Your task to perform on an android device: set an alarm Image 0: 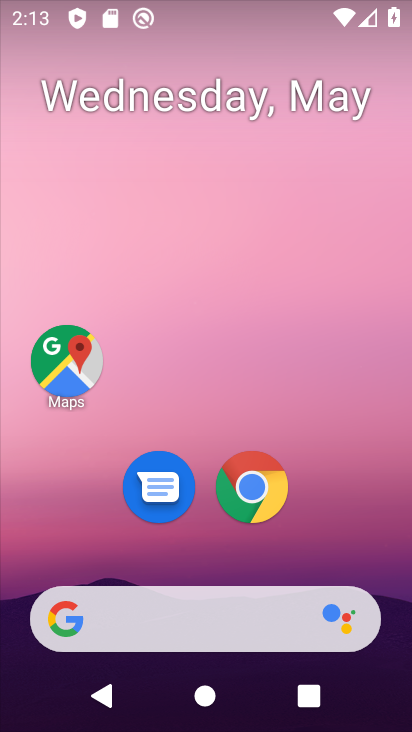
Step 0: drag from (308, 522) to (360, 60)
Your task to perform on an android device: set an alarm Image 1: 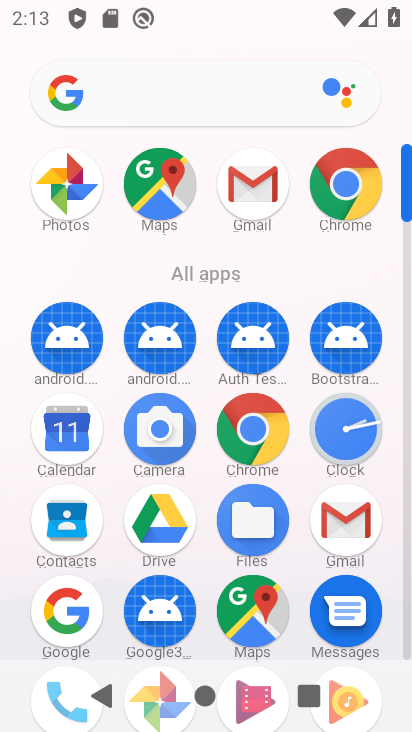
Step 1: click (331, 427)
Your task to perform on an android device: set an alarm Image 2: 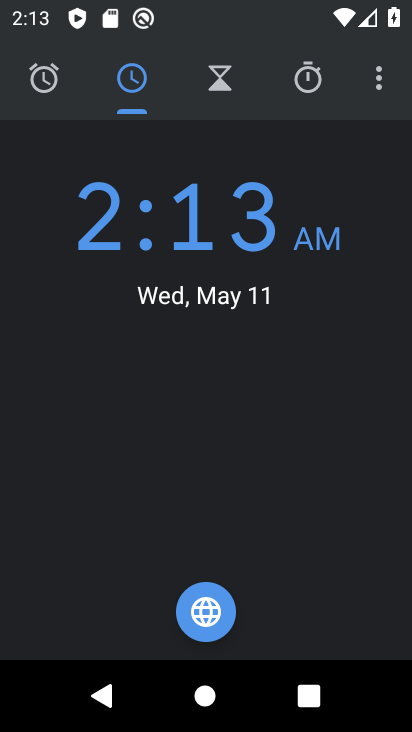
Step 2: click (56, 83)
Your task to perform on an android device: set an alarm Image 3: 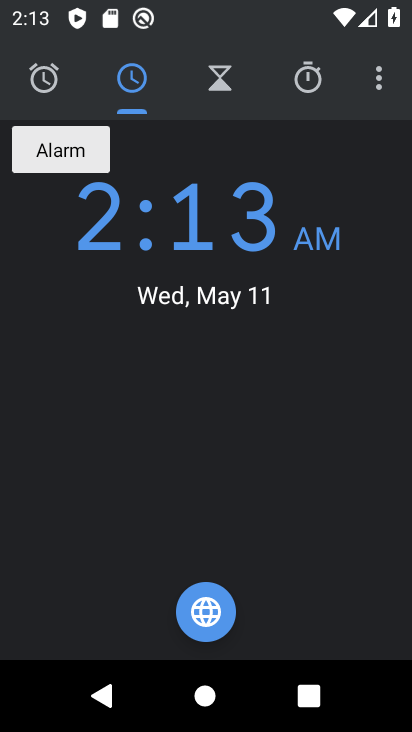
Step 3: click (49, 84)
Your task to perform on an android device: set an alarm Image 4: 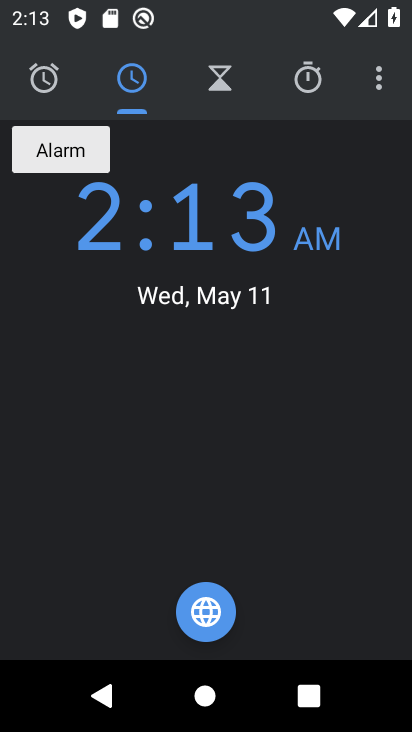
Step 4: click (44, 76)
Your task to perform on an android device: set an alarm Image 5: 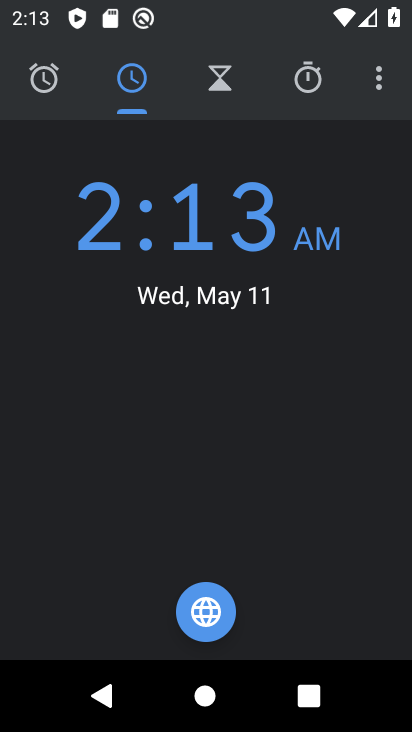
Step 5: click (44, 78)
Your task to perform on an android device: set an alarm Image 6: 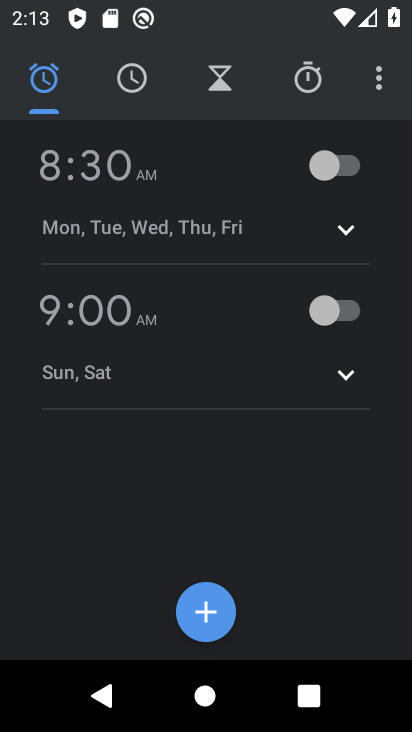
Step 6: click (220, 612)
Your task to perform on an android device: set an alarm Image 7: 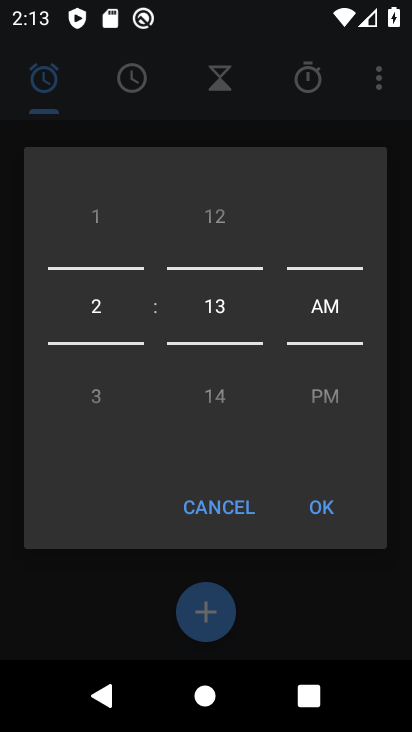
Step 7: drag from (326, 387) to (328, 296)
Your task to perform on an android device: set an alarm Image 8: 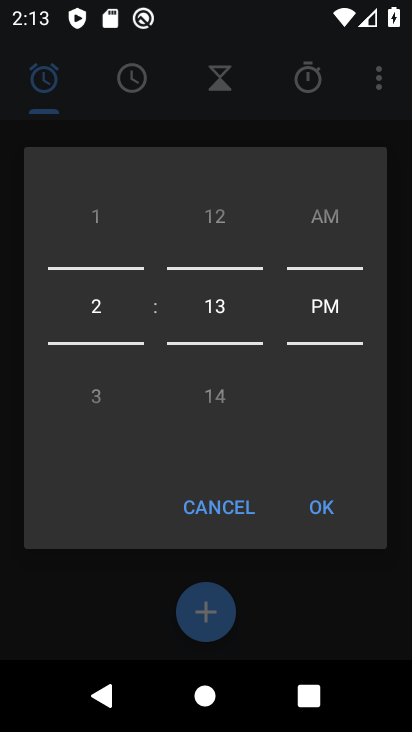
Step 8: drag from (225, 376) to (232, 238)
Your task to perform on an android device: set an alarm Image 9: 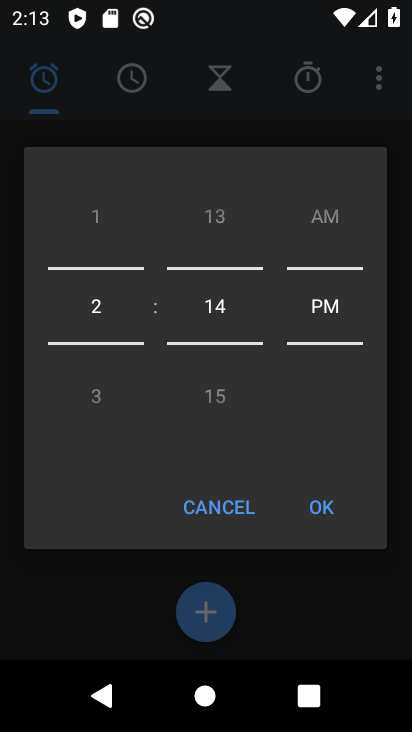
Step 9: drag from (214, 369) to (227, 238)
Your task to perform on an android device: set an alarm Image 10: 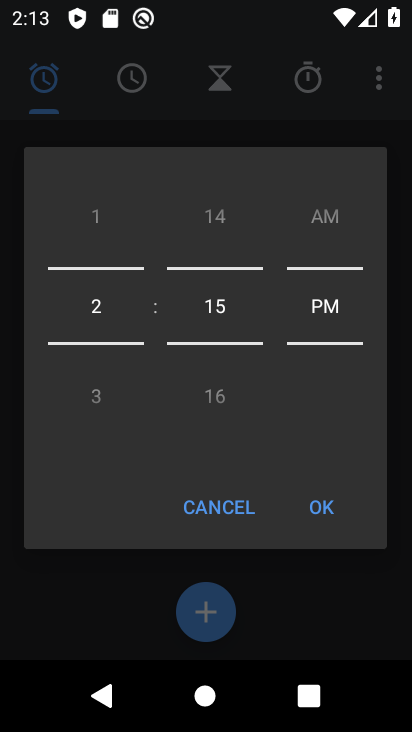
Step 10: click (323, 495)
Your task to perform on an android device: set an alarm Image 11: 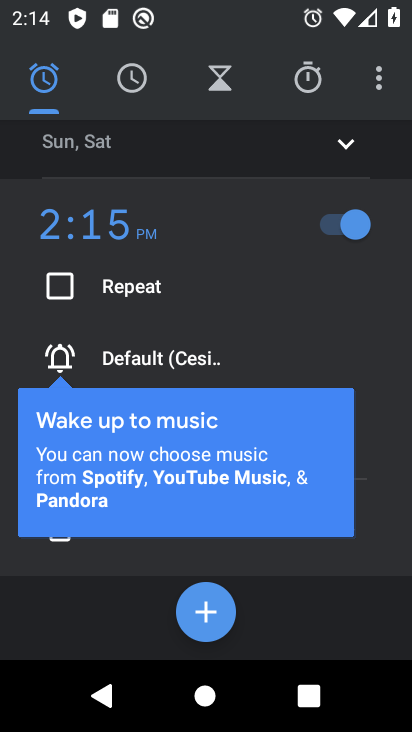
Step 11: task complete